Your task to perform on an android device: change the clock display to analog Image 0: 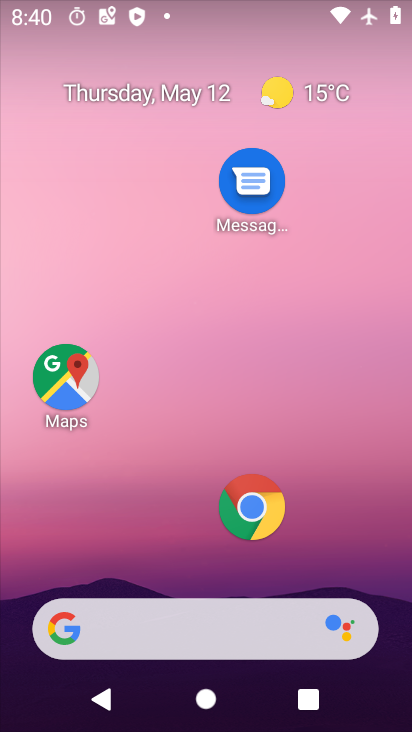
Step 0: drag from (328, 534) to (291, 67)
Your task to perform on an android device: change the clock display to analog Image 1: 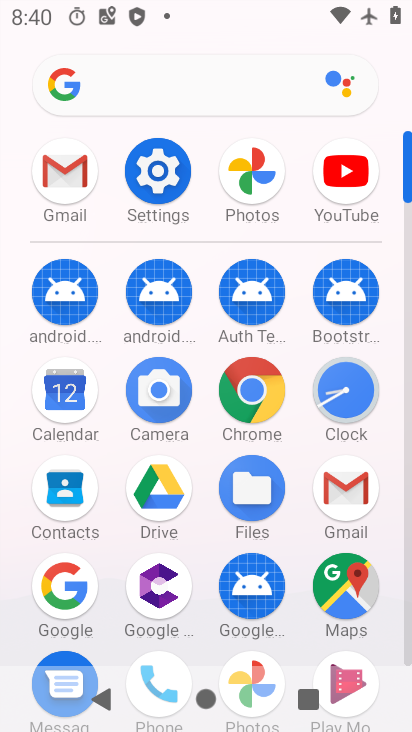
Step 1: click (344, 383)
Your task to perform on an android device: change the clock display to analog Image 2: 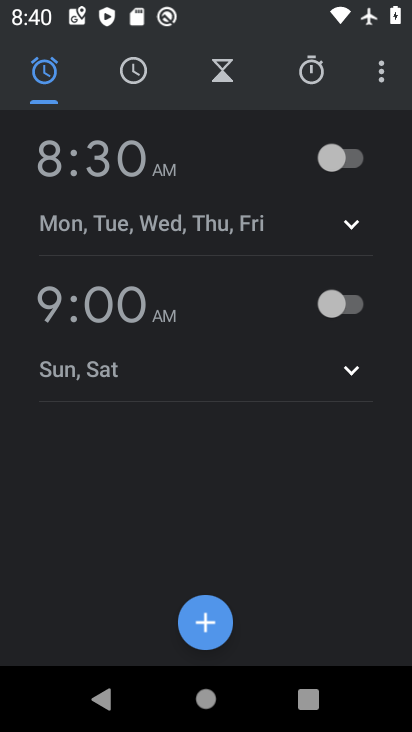
Step 2: click (385, 73)
Your task to perform on an android device: change the clock display to analog Image 3: 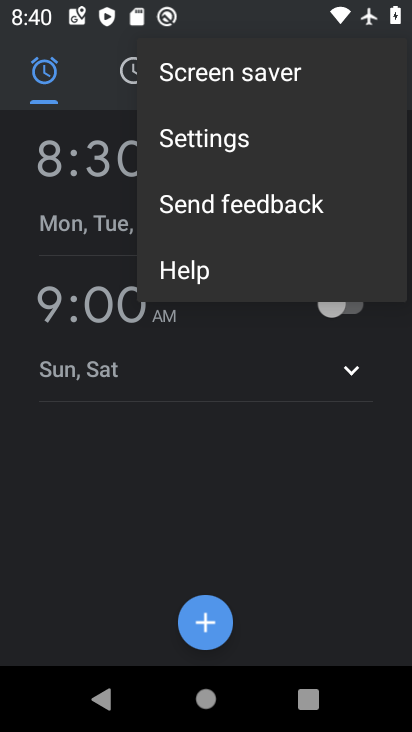
Step 3: click (251, 138)
Your task to perform on an android device: change the clock display to analog Image 4: 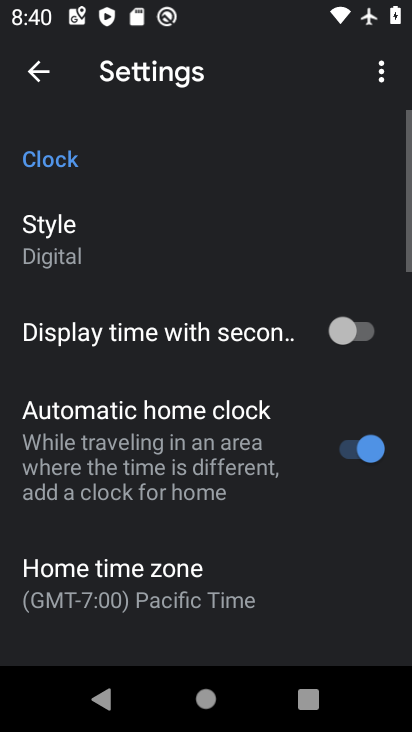
Step 4: click (72, 251)
Your task to perform on an android device: change the clock display to analog Image 5: 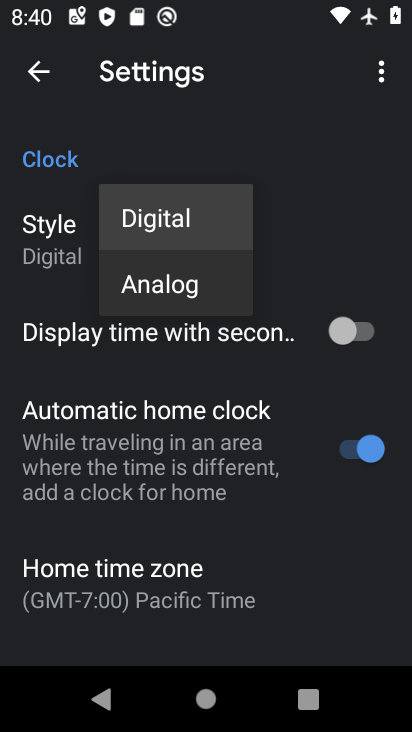
Step 5: click (162, 291)
Your task to perform on an android device: change the clock display to analog Image 6: 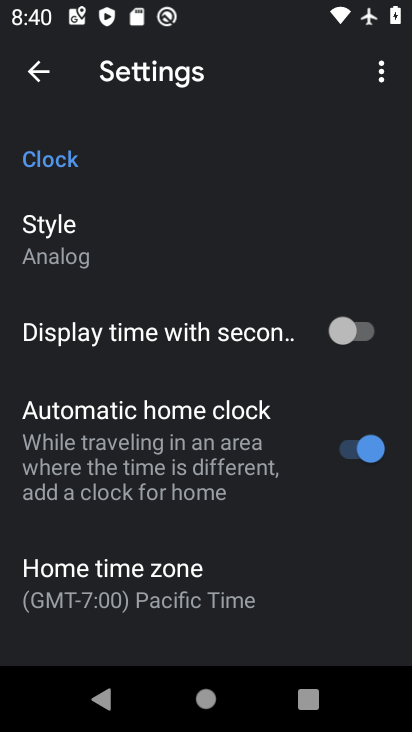
Step 6: task complete